Your task to perform on an android device: Go to battery settings Image 0: 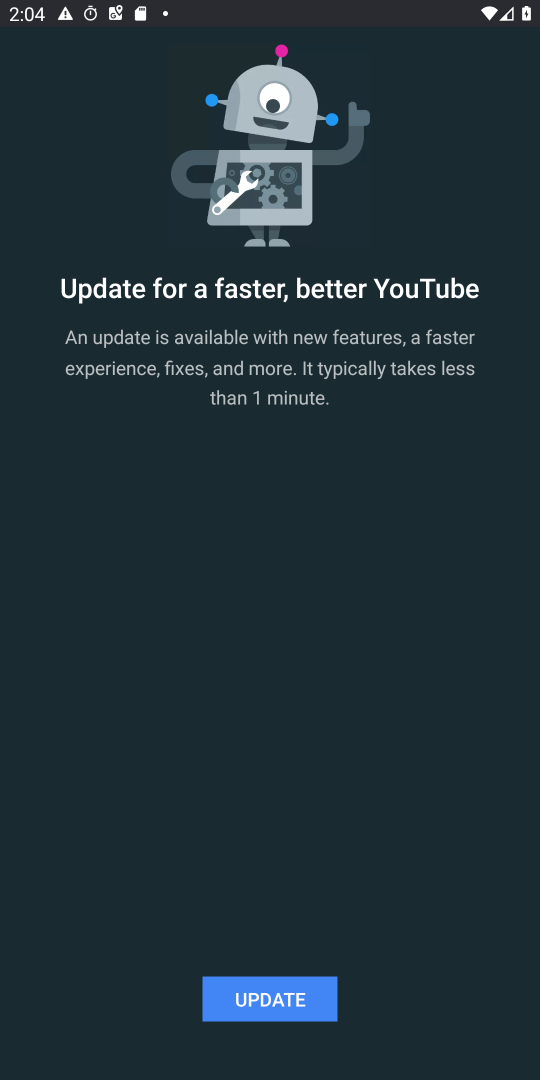
Step 0: press home button
Your task to perform on an android device: Go to battery settings Image 1: 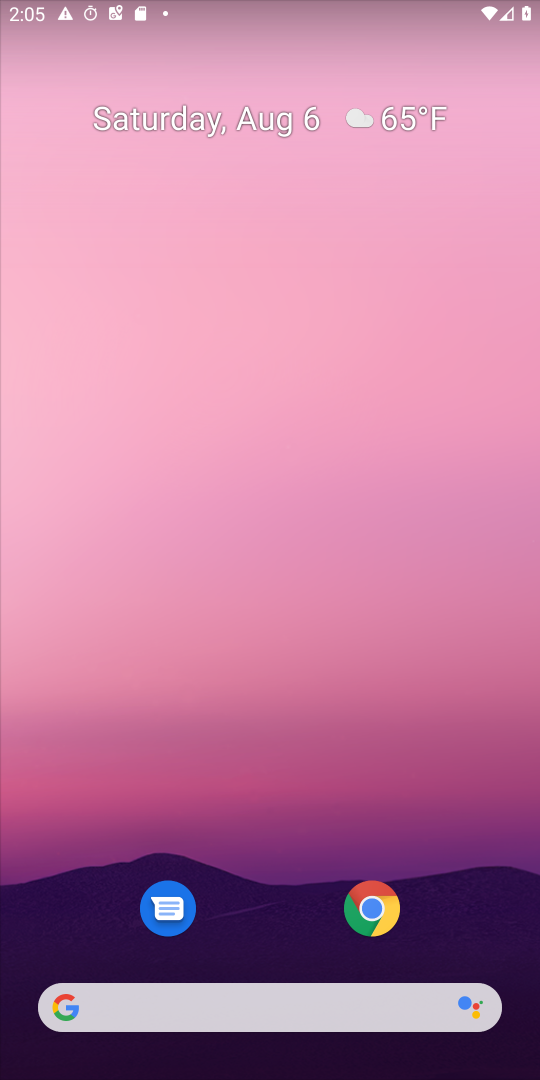
Step 1: drag from (274, 846) to (279, 210)
Your task to perform on an android device: Go to battery settings Image 2: 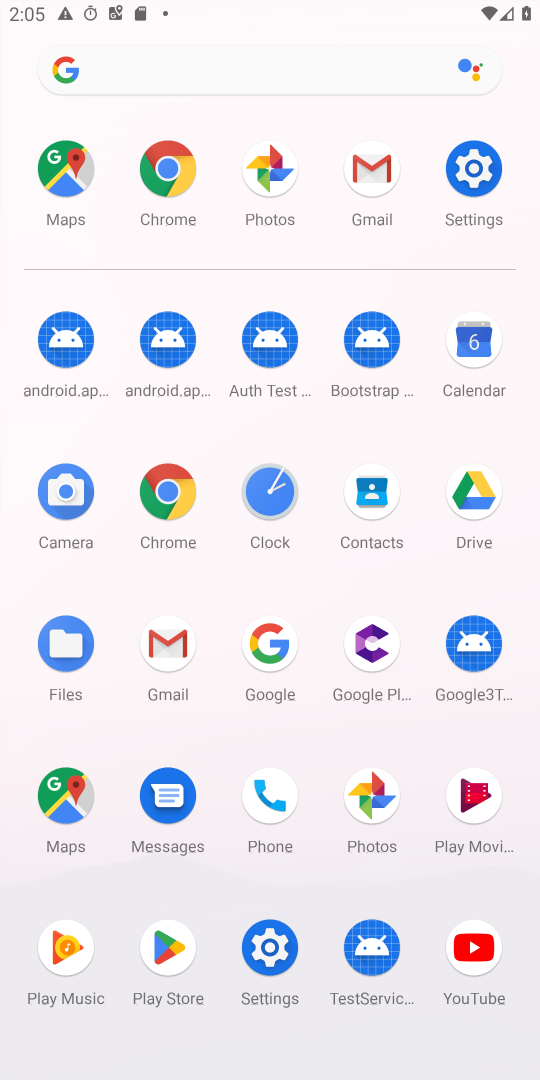
Step 2: click (260, 953)
Your task to perform on an android device: Go to battery settings Image 3: 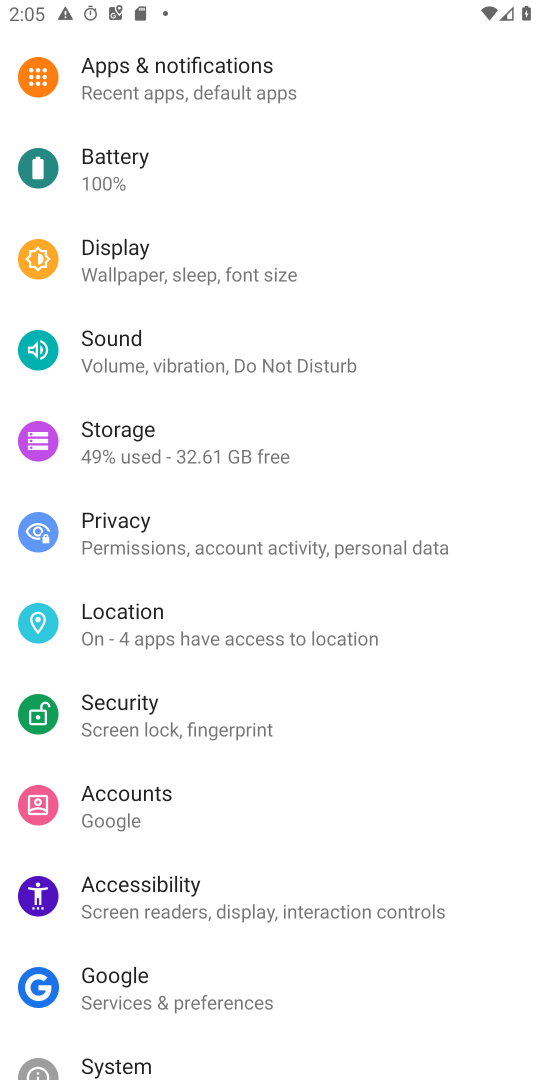
Step 3: click (159, 170)
Your task to perform on an android device: Go to battery settings Image 4: 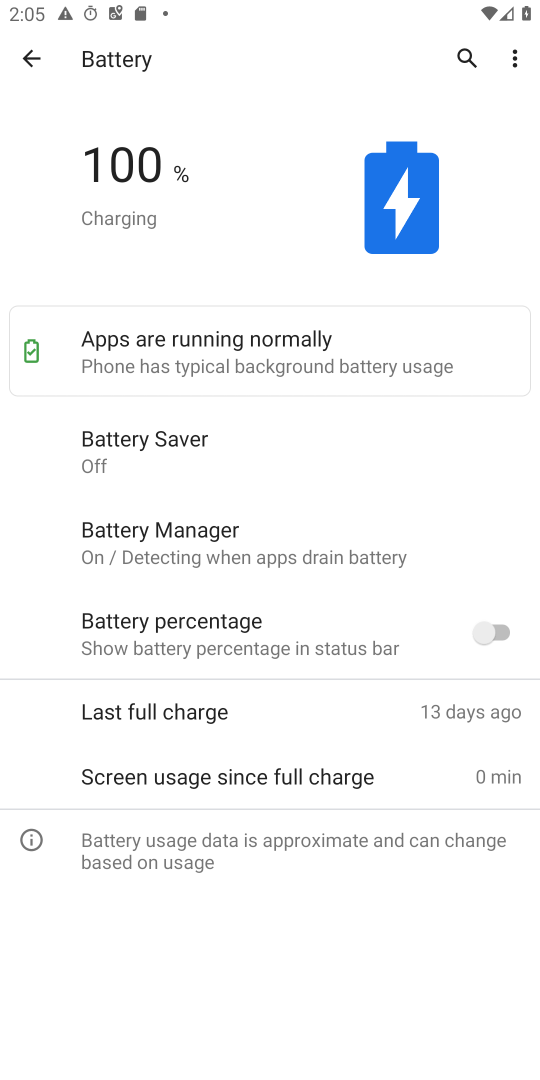
Step 4: task complete